Your task to perform on an android device: Open battery settings Image 0: 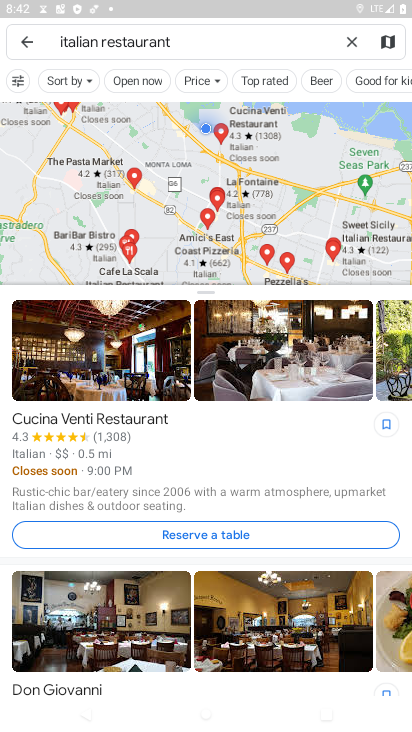
Step 0: press home button
Your task to perform on an android device: Open battery settings Image 1: 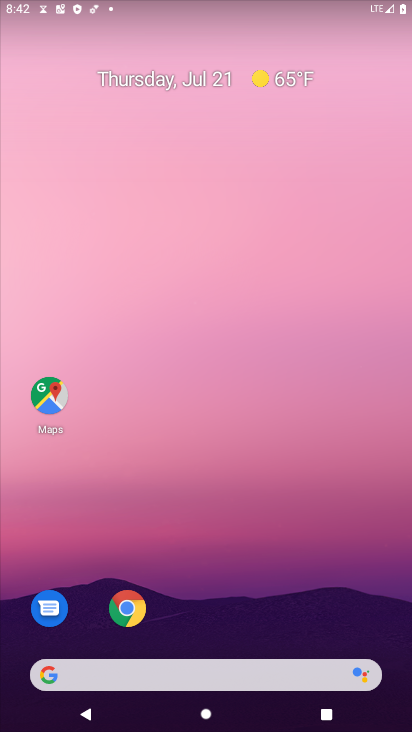
Step 1: drag from (212, 675) to (226, 204)
Your task to perform on an android device: Open battery settings Image 2: 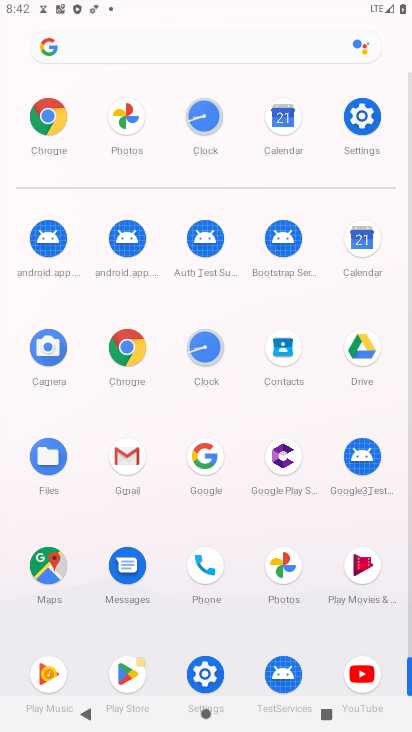
Step 2: click (361, 115)
Your task to perform on an android device: Open battery settings Image 3: 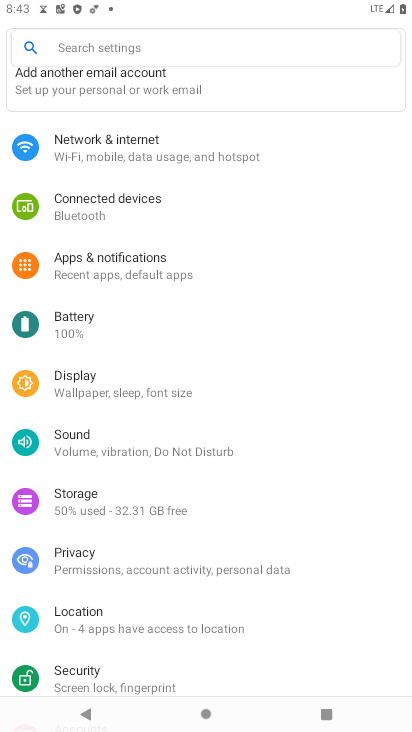
Step 3: click (67, 330)
Your task to perform on an android device: Open battery settings Image 4: 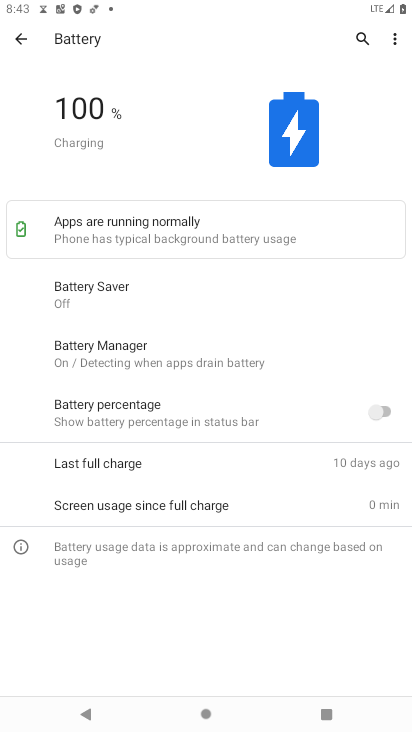
Step 4: task complete